Your task to perform on an android device: all mails in gmail Image 0: 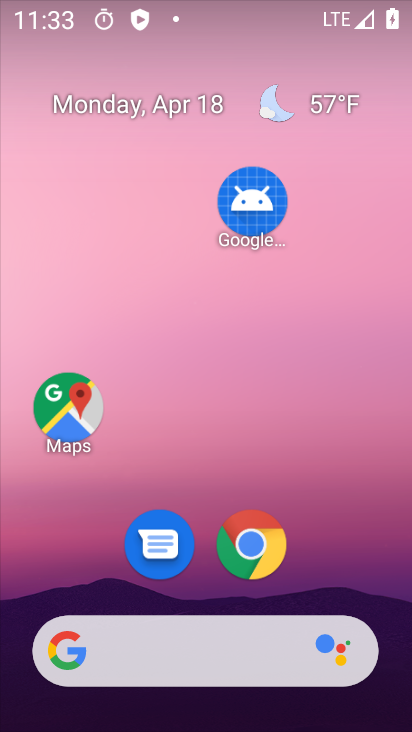
Step 0: drag from (277, 352) to (275, 212)
Your task to perform on an android device: all mails in gmail Image 1: 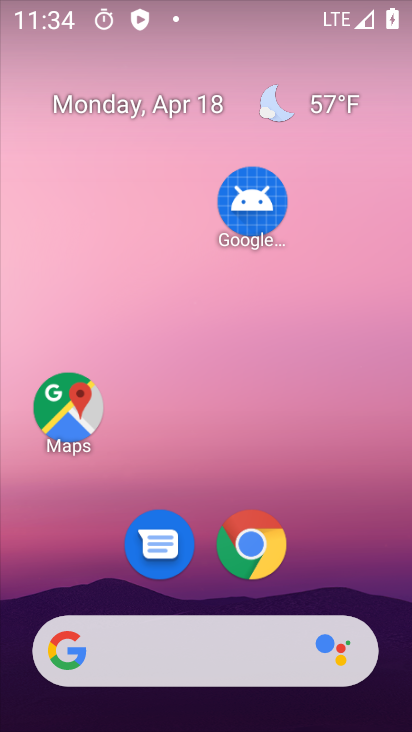
Step 1: drag from (356, 599) to (303, 71)
Your task to perform on an android device: all mails in gmail Image 2: 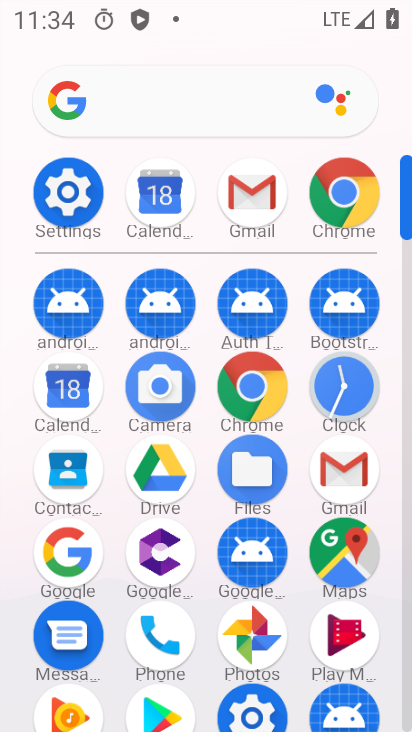
Step 2: click (246, 201)
Your task to perform on an android device: all mails in gmail Image 3: 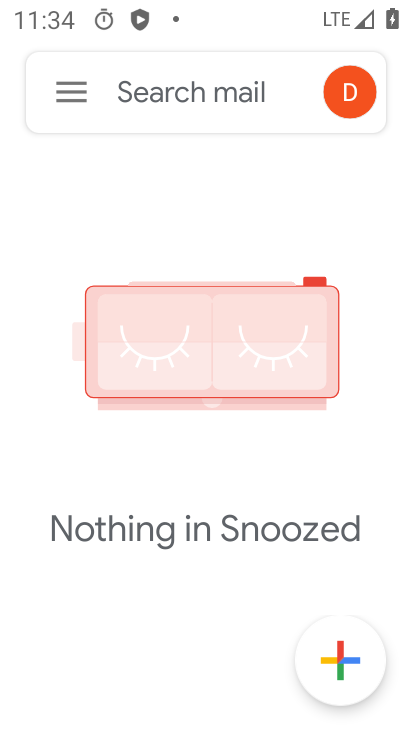
Step 3: click (73, 97)
Your task to perform on an android device: all mails in gmail Image 4: 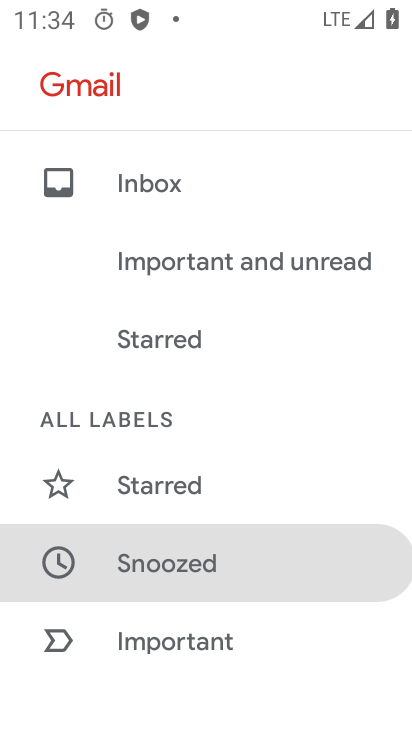
Step 4: drag from (262, 584) to (266, 218)
Your task to perform on an android device: all mails in gmail Image 5: 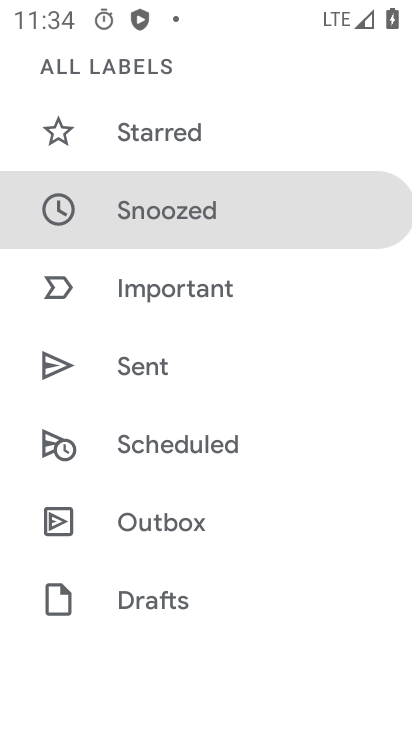
Step 5: drag from (253, 576) to (248, 225)
Your task to perform on an android device: all mails in gmail Image 6: 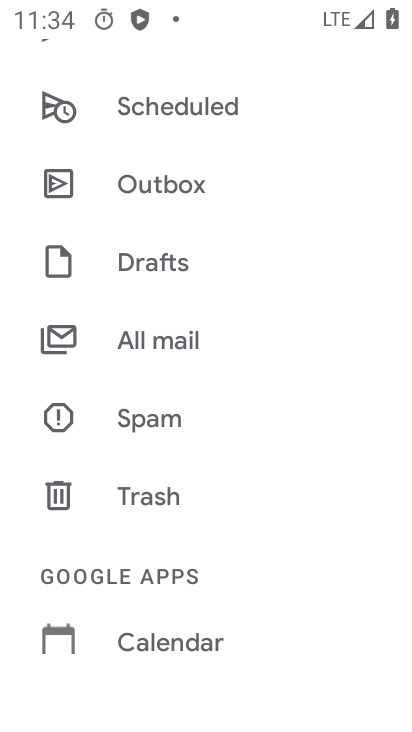
Step 6: click (182, 333)
Your task to perform on an android device: all mails in gmail Image 7: 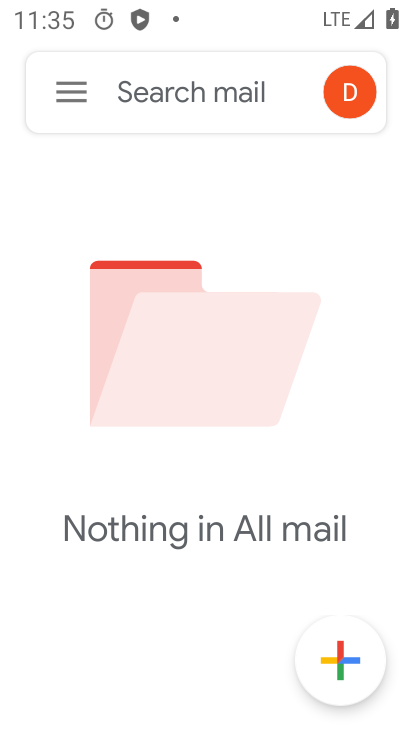
Step 7: task complete